Your task to perform on an android device: Go to location settings Image 0: 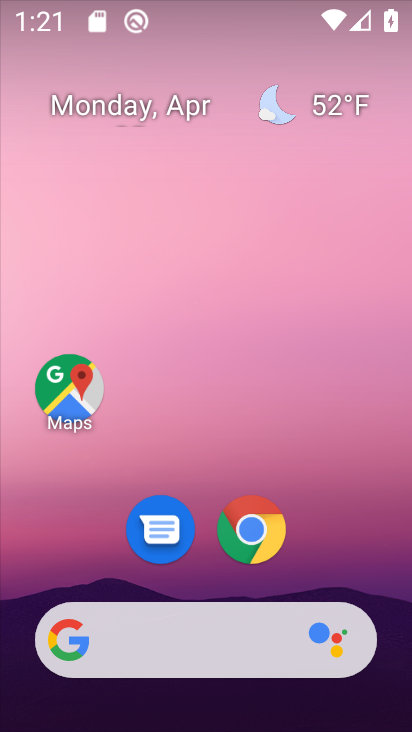
Step 0: drag from (364, 377) to (333, 97)
Your task to perform on an android device: Go to location settings Image 1: 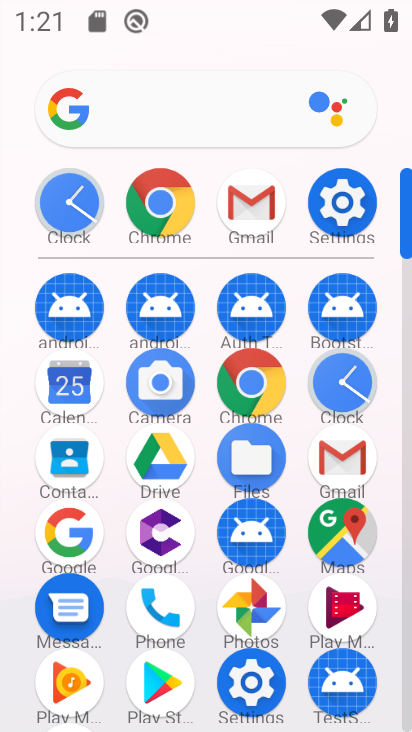
Step 1: click (333, 207)
Your task to perform on an android device: Go to location settings Image 2: 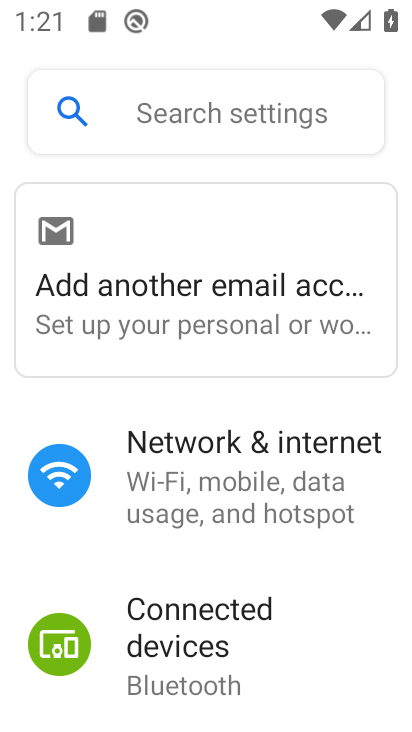
Step 2: drag from (332, 676) to (342, 432)
Your task to perform on an android device: Go to location settings Image 3: 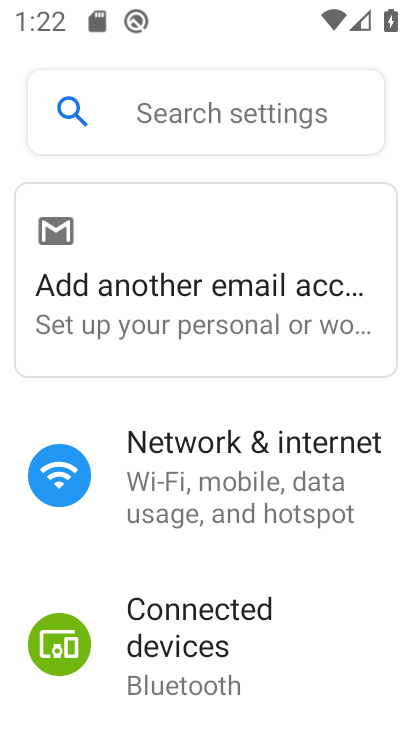
Step 3: drag from (337, 357) to (316, 185)
Your task to perform on an android device: Go to location settings Image 4: 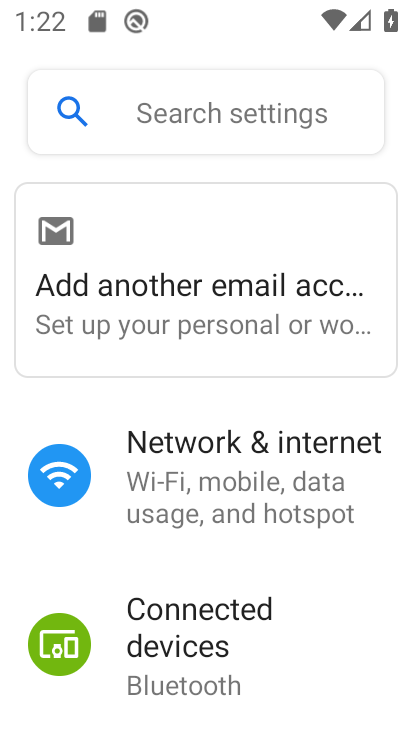
Step 4: drag from (309, 532) to (300, 152)
Your task to perform on an android device: Go to location settings Image 5: 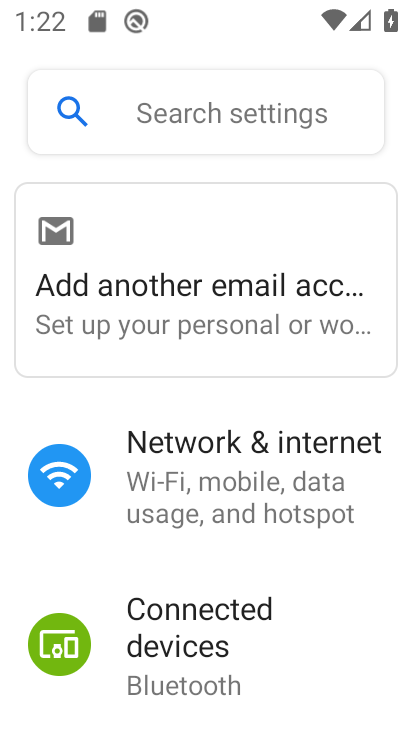
Step 5: drag from (361, 690) to (335, 364)
Your task to perform on an android device: Go to location settings Image 6: 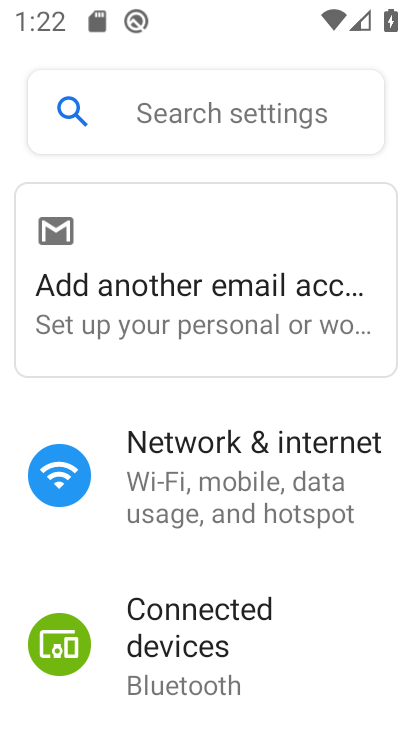
Step 6: drag from (311, 691) to (285, 228)
Your task to perform on an android device: Go to location settings Image 7: 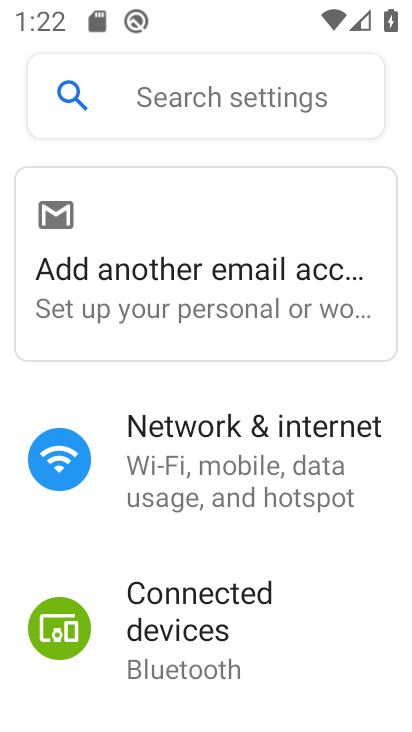
Step 7: drag from (342, 690) to (311, 252)
Your task to perform on an android device: Go to location settings Image 8: 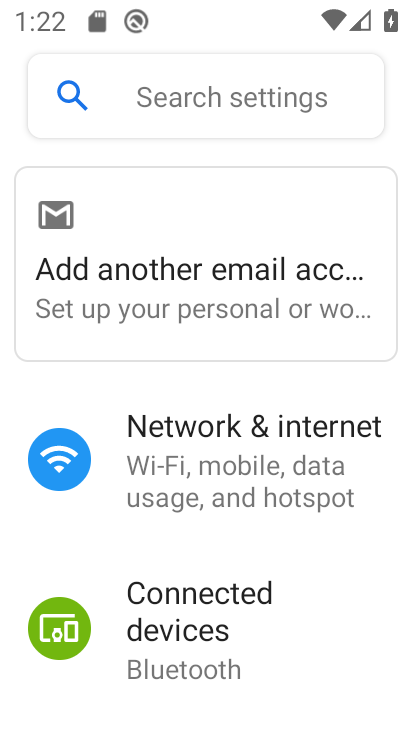
Step 8: drag from (318, 662) to (297, 224)
Your task to perform on an android device: Go to location settings Image 9: 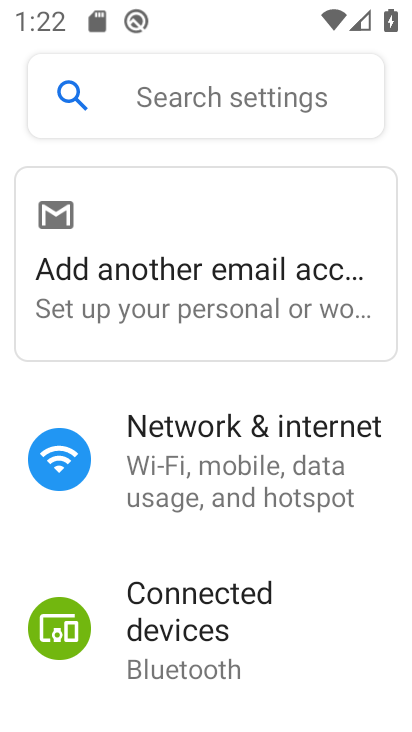
Step 9: drag from (319, 630) to (269, 206)
Your task to perform on an android device: Go to location settings Image 10: 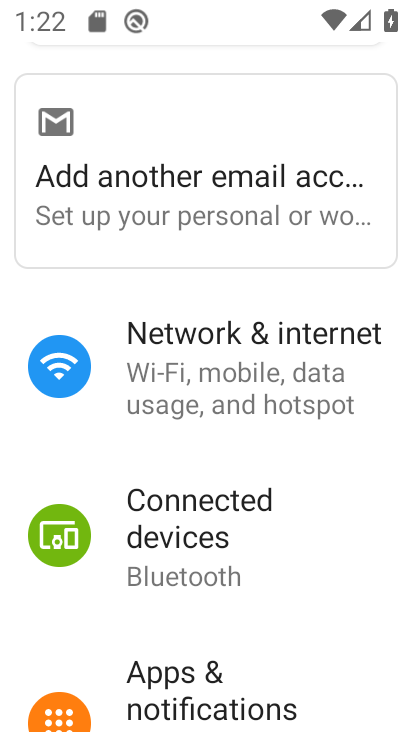
Step 10: drag from (315, 708) to (302, 200)
Your task to perform on an android device: Go to location settings Image 11: 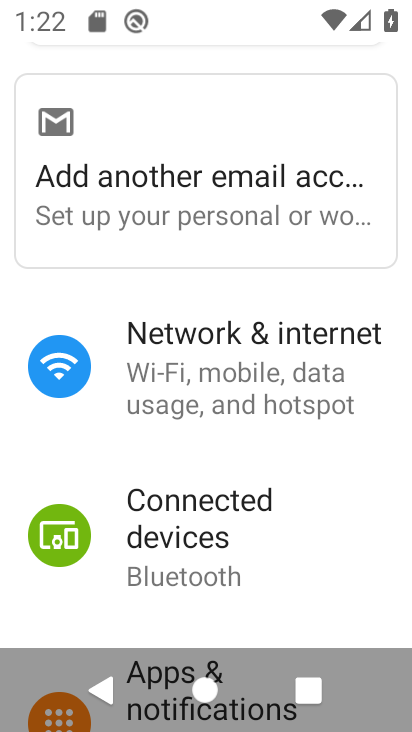
Step 11: drag from (332, 589) to (278, 158)
Your task to perform on an android device: Go to location settings Image 12: 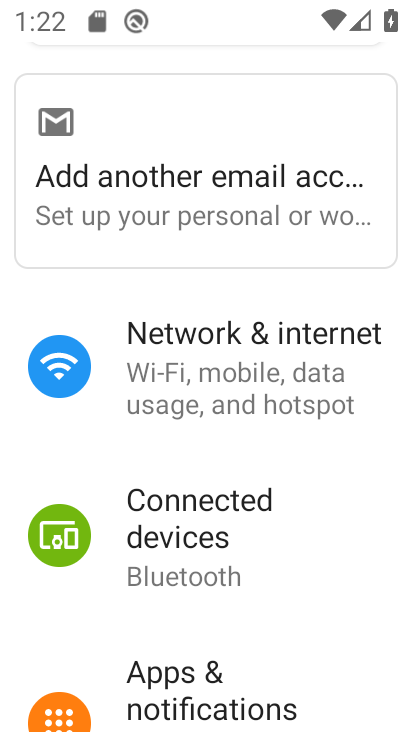
Step 12: drag from (305, 710) to (298, 223)
Your task to perform on an android device: Go to location settings Image 13: 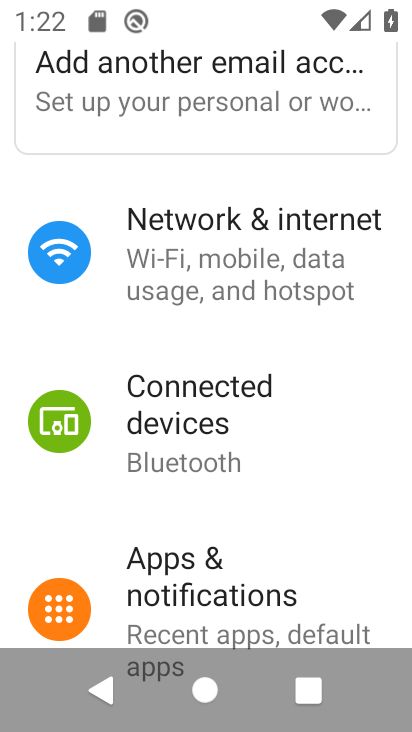
Step 13: drag from (319, 576) to (315, 116)
Your task to perform on an android device: Go to location settings Image 14: 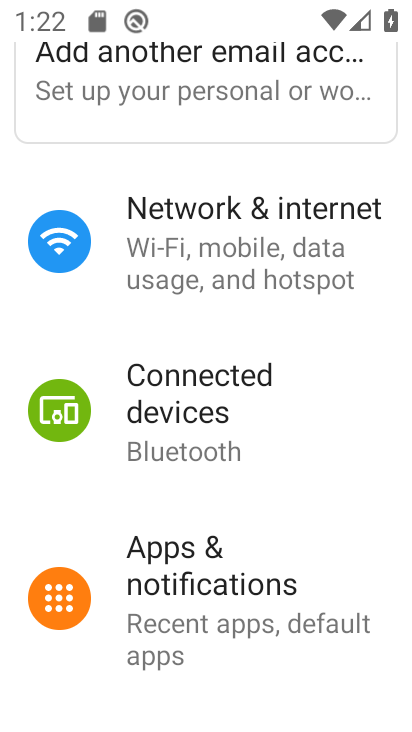
Step 14: drag from (328, 604) to (272, 209)
Your task to perform on an android device: Go to location settings Image 15: 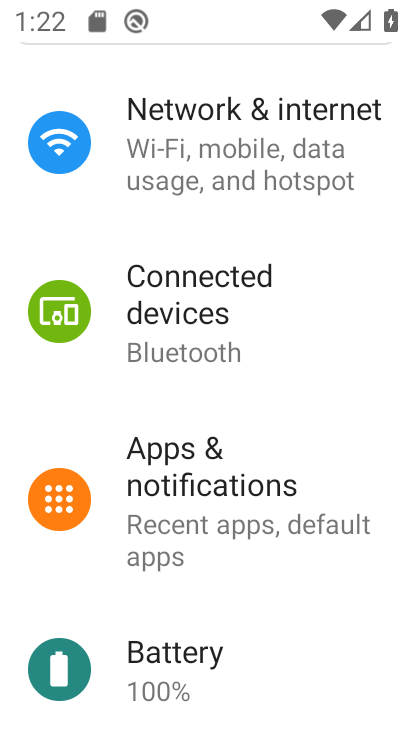
Step 15: drag from (287, 472) to (257, 300)
Your task to perform on an android device: Go to location settings Image 16: 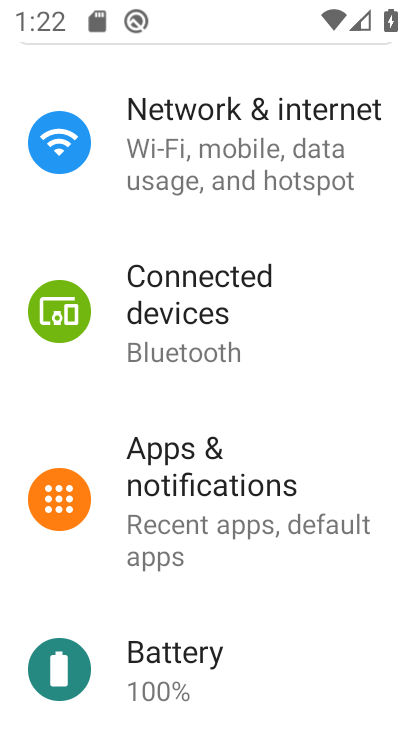
Step 16: drag from (309, 663) to (264, 211)
Your task to perform on an android device: Go to location settings Image 17: 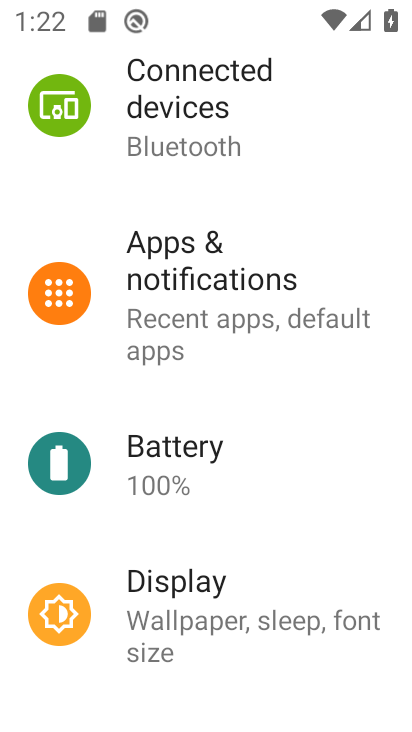
Step 17: click (307, 251)
Your task to perform on an android device: Go to location settings Image 18: 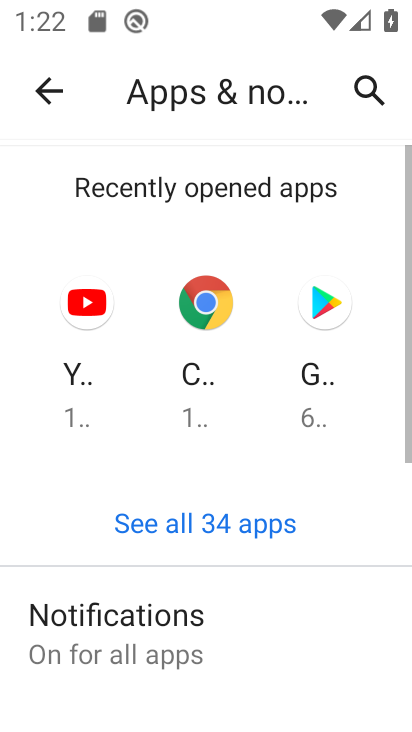
Step 18: drag from (328, 575) to (322, 228)
Your task to perform on an android device: Go to location settings Image 19: 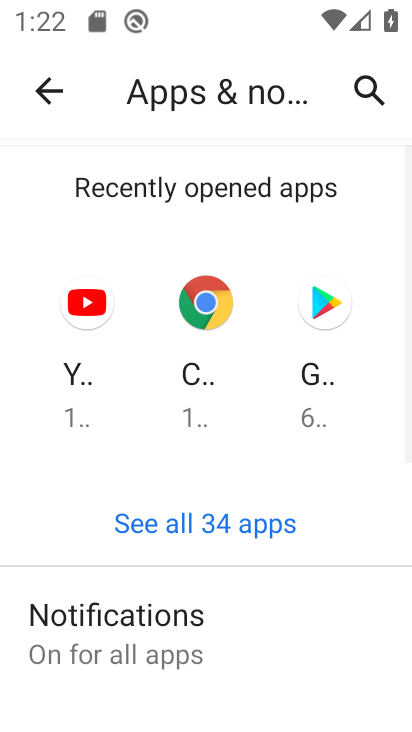
Step 19: click (39, 82)
Your task to perform on an android device: Go to location settings Image 20: 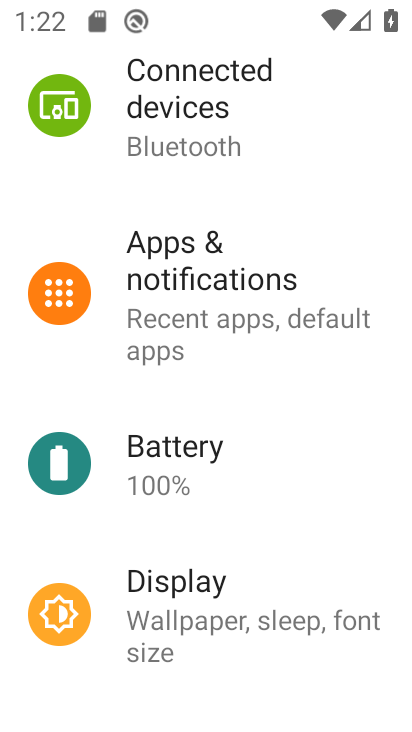
Step 20: drag from (326, 645) to (272, 217)
Your task to perform on an android device: Go to location settings Image 21: 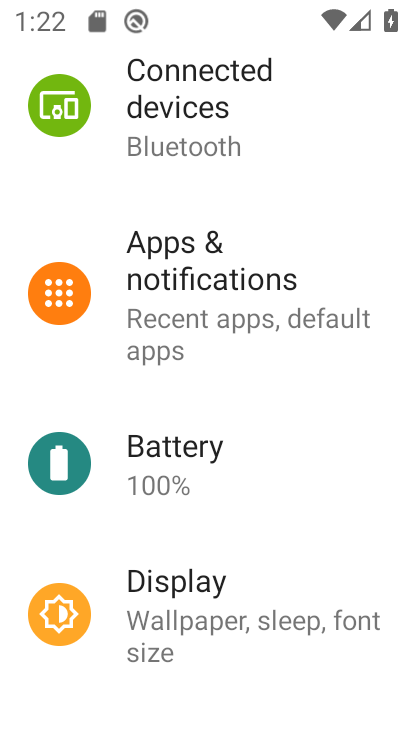
Step 21: drag from (312, 365) to (288, 87)
Your task to perform on an android device: Go to location settings Image 22: 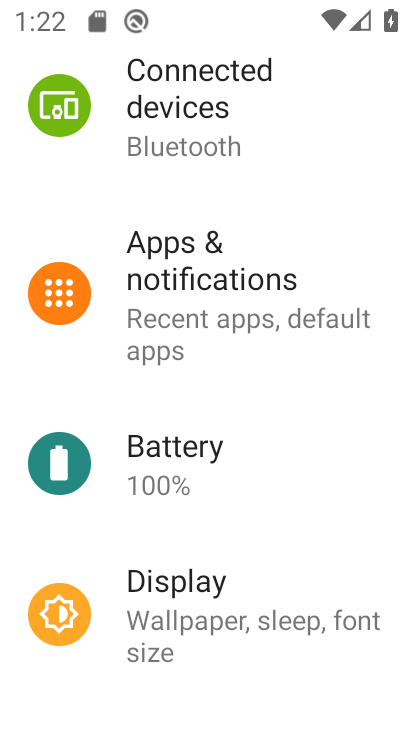
Step 22: drag from (357, 643) to (361, 257)
Your task to perform on an android device: Go to location settings Image 23: 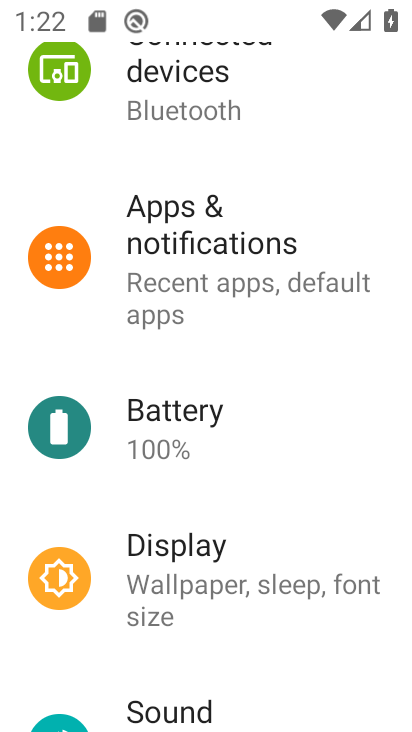
Step 23: drag from (328, 604) to (294, 295)
Your task to perform on an android device: Go to location settings Image 24: 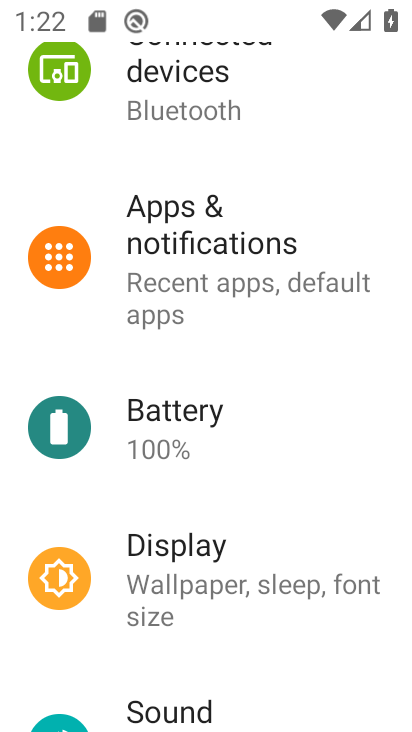
Step 24: drag from (312, 670) to (291, 187)
Your task to perform on an android device: Go to location settings Image 25: 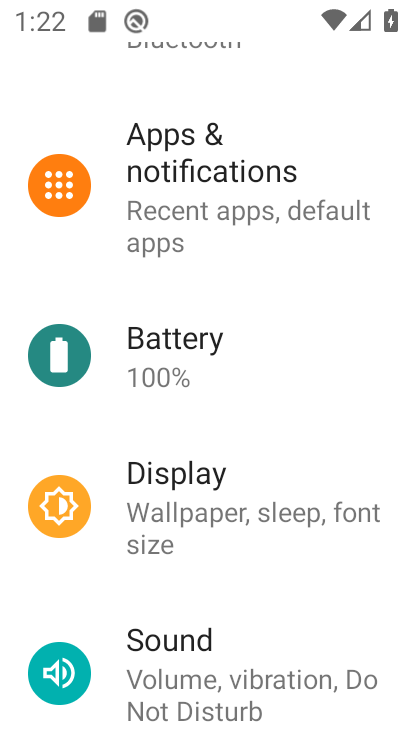
Step 25: drag from (303, 485) to (271, 204)
Your task to perform on an android device: Go to location settings Image 26: 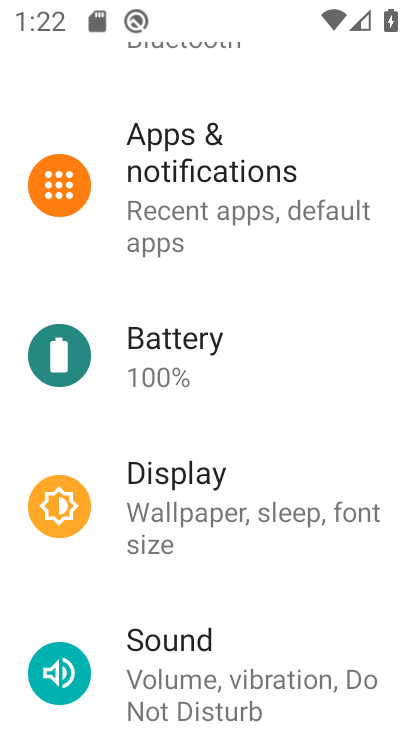
Step 26: drag from (309, 672) to (347, 295)
Your task to perform on an android device: Go to location settings Image 27: 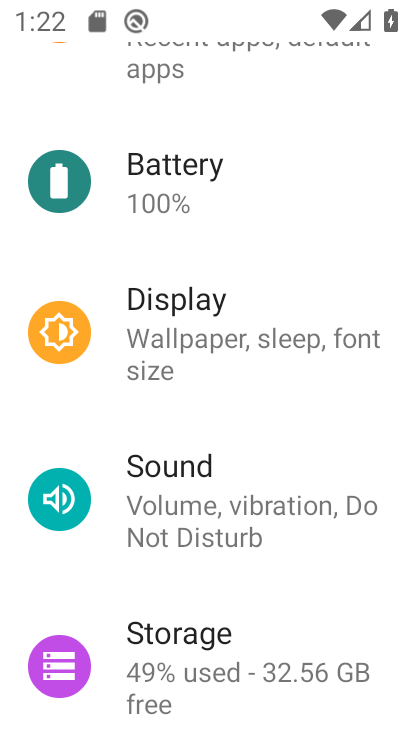
Step 27: drag from (328, 565) to (315, 335)
Your task to perform on an android device: Go to location settings Image 28: 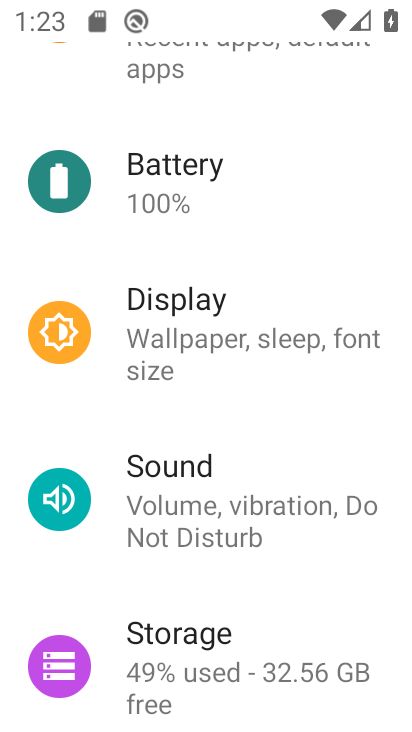
Step 28: drag from (299, 669) to (308, 170)
Your task to perform on an android device: Go to location settings Image 29: 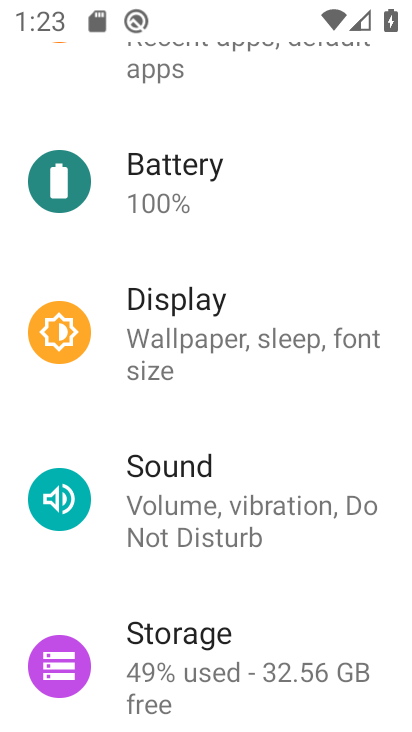
Step 29: drag from (281, 677) to (258, 134)
Your task to perform on an android device: Go to location settings Image 30: 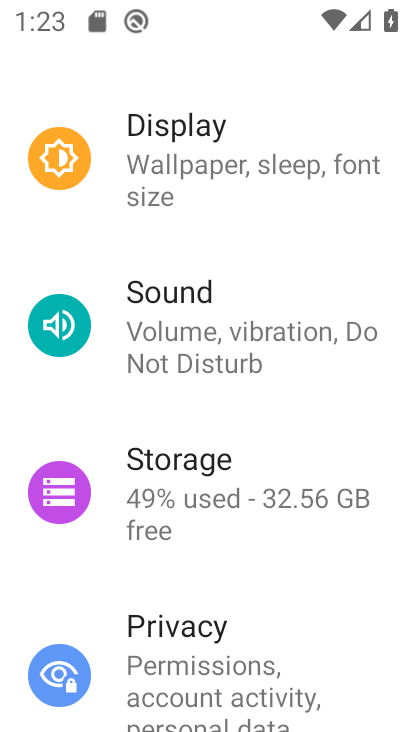
Step 30: drag from (313, 605) to (321, 319)
Your task to perform on an android device: Go to location settings Image 31: 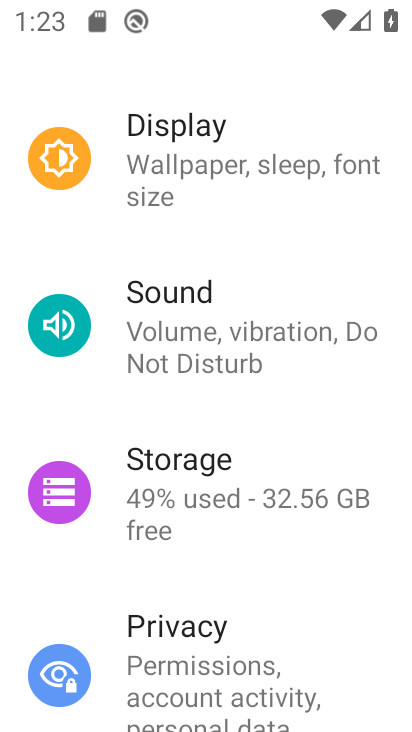
Step 31: drag from (318, 668) to (304, 325)
Your task to perform on an android device: Go to location settings Image 32: 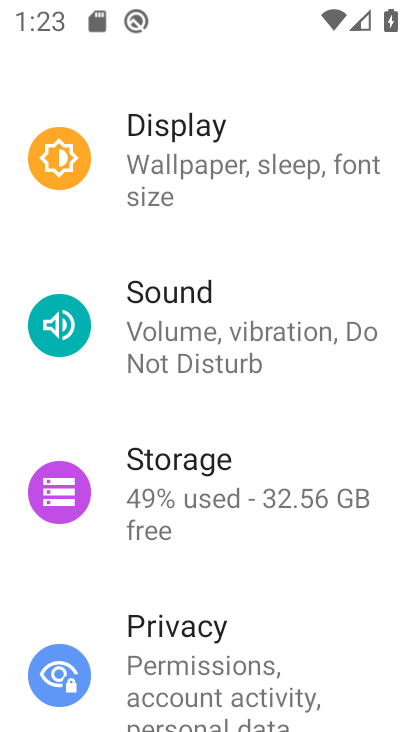
Step 32: drag from (309, 356) to (302, 193)
Your task to perform on an android device: Go to location settings Image 33: 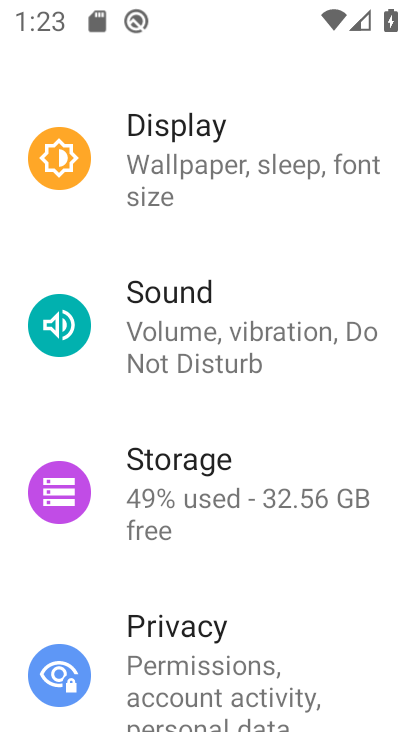
Step 33: drag from (338, 372) to (325, 301)
Your task to perform on an android device: Go to location settings Image 34: 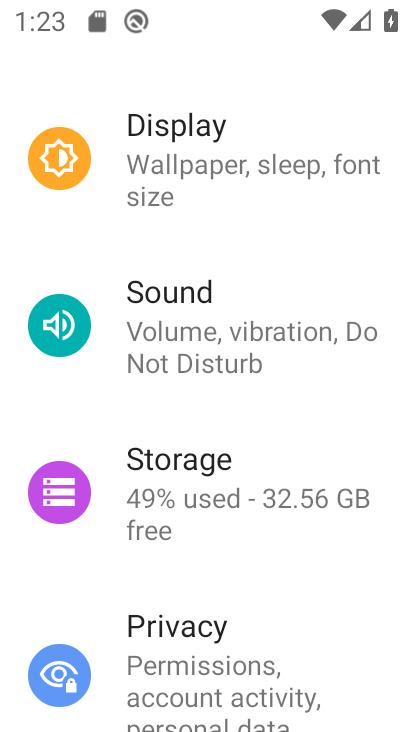
Step 34: drag from (324, 681) to (299, 203)
Your task to perform on an android device: Go to location settings Image 35: 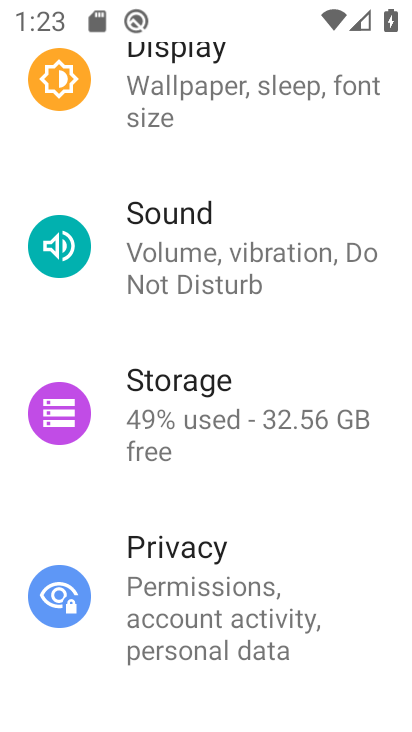
Step 35: drag from (313, 671) to (302, 323)
Your task to perform on an android device: Go to location settings Image 36: 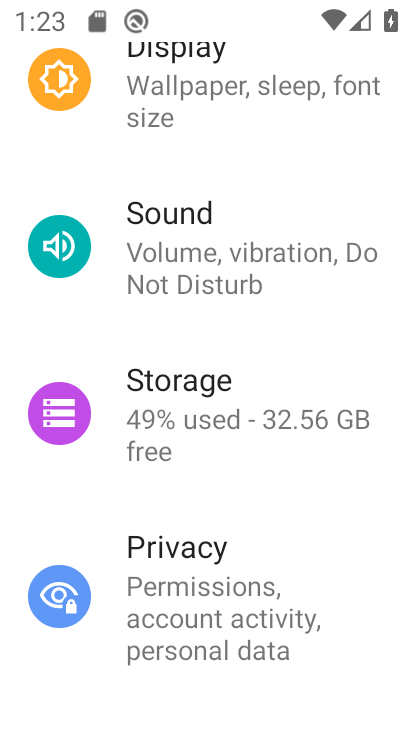
Step 36: drag from (334, 352) to (326, 288)
Your task to perform on an android device: Go to location settings Image 37: 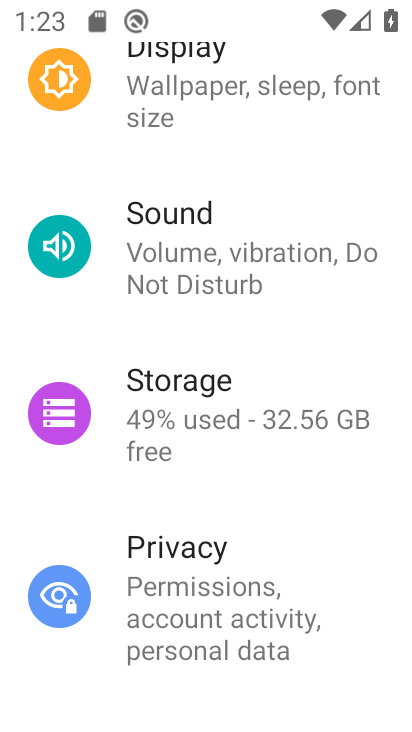
Step 37: drag from (333, 613) to (357, 261)
Your task to perform on an android device: Go to location settings Image 38: 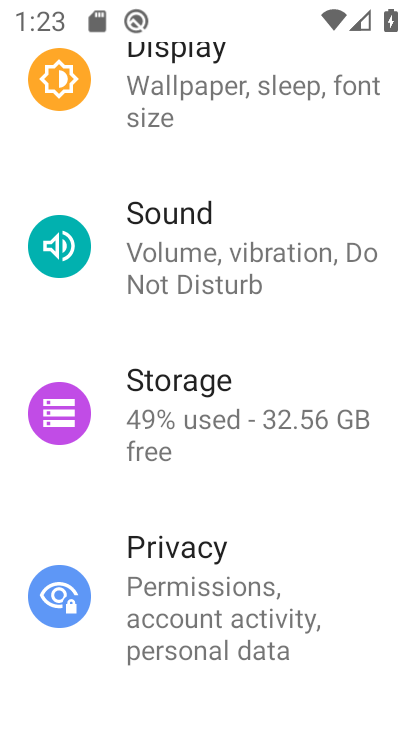
Step 38: drag from (356, 648) to (340, 175)
Your task to perform on an android device: Go to location settings Image 39: 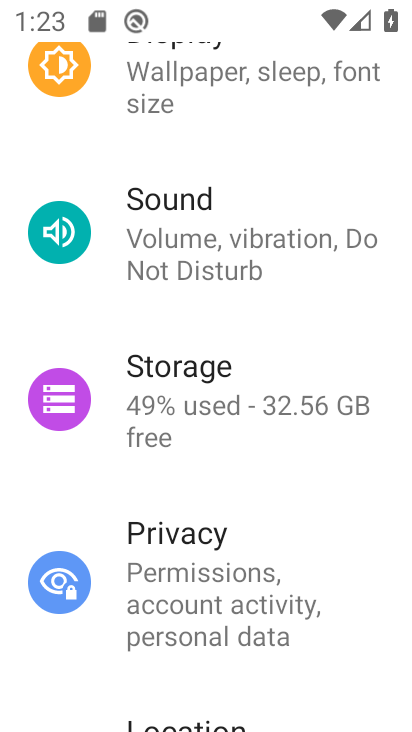
Step 39: drag from (336, 378) to (333, 299)
Your task to perform on an android device: Go to location settings Image 40: 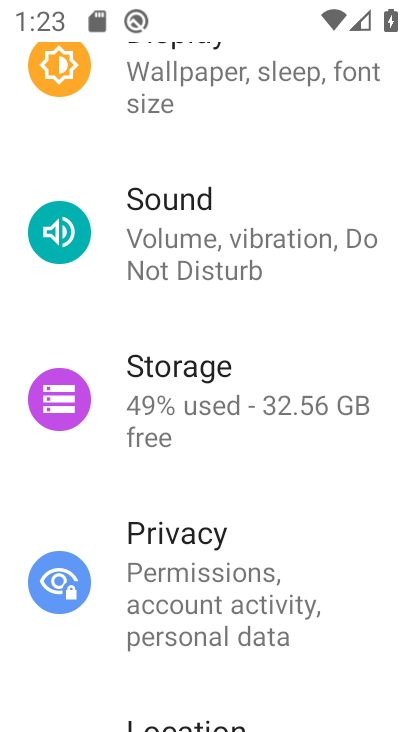
Step 40: drag from (323, 684) to (339, 366)
Your task to perform on an android device: Go to location settings Image 41: 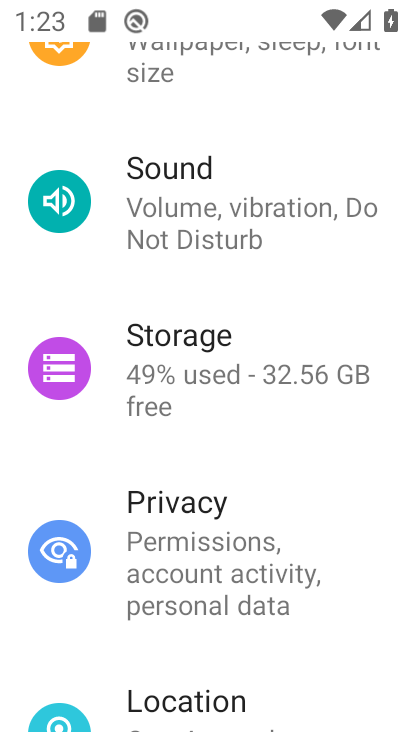
Step 41: drag from (321, 673) to (252, 174)
Your task to perform on an android device: Go to location settings Image 42: 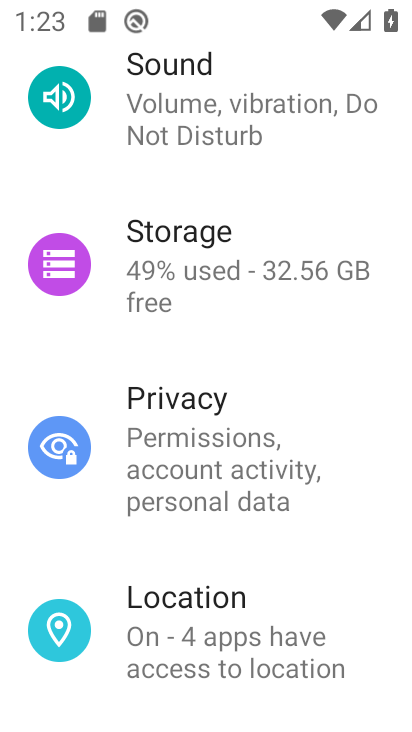
Step 42: click (150, 620)
Your task to perform on an android device: Go to location settings Image 43: 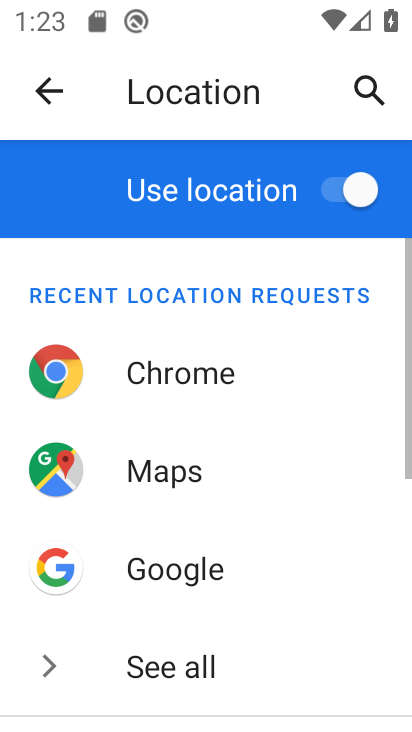
Step 43: task complete